Your task to perform on an android device: Is it going to rain today? Image 0: 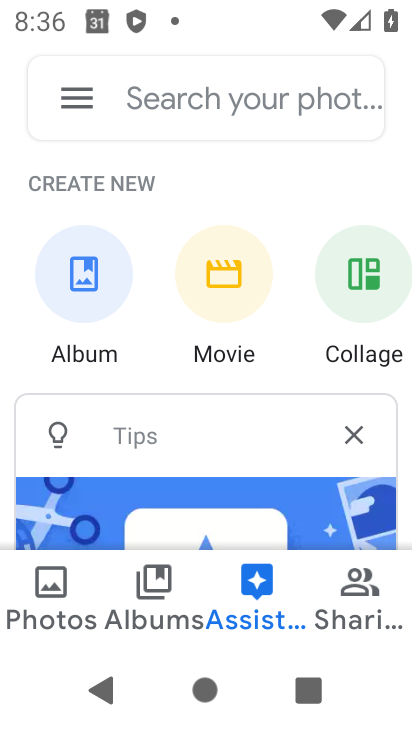
Step 0: press home button
Your task to perform on an android device: Is it going to rain today? Image 1: 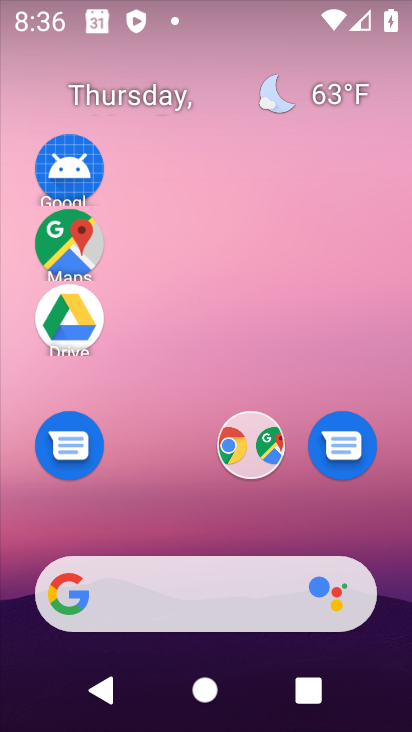
Step 1: click (156, 577)
Your task to perform on an android device: Is it going to rain today? Image 2: 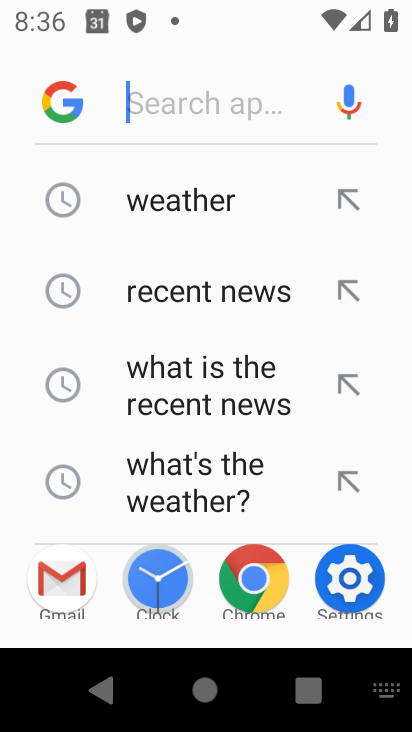
Step 2: click (180, 218)
Your task to perform on an android device: Is it going to rain today? Image 3: 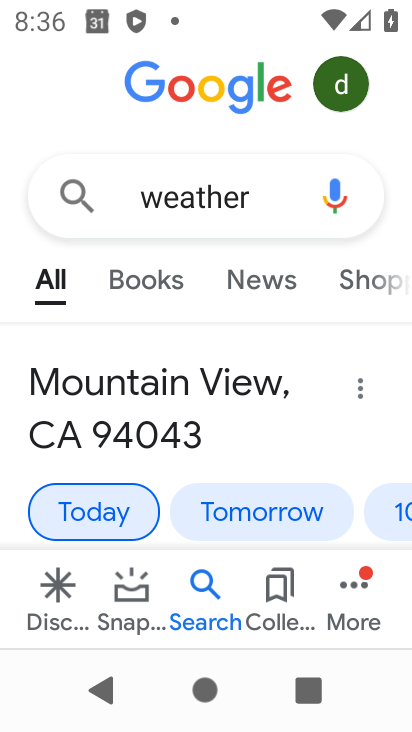
Step 3: click (92, 504)
Your task to perform on an android device: Is it going to rain today? Image 4: 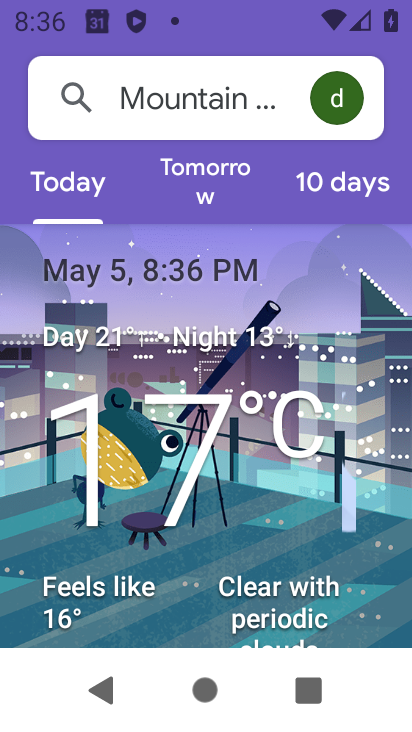
Step 4: task complete